Your task to perform on an android device: When is my next meeting? Image 0: 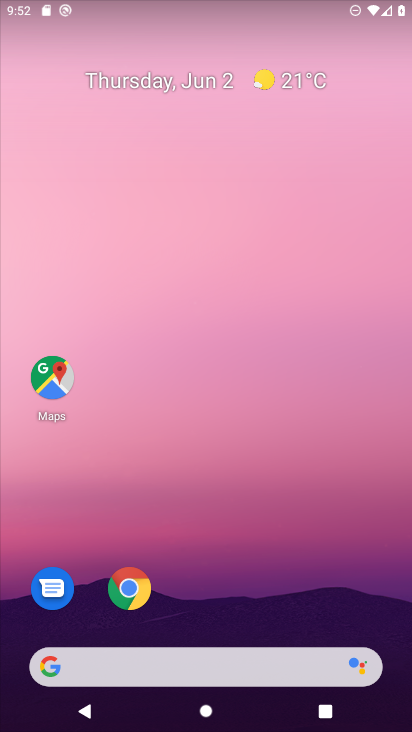
Step 0: drag from (160, 648) to (234, 81)
Your task to perform on an android device: When is my next meeting? Image 1: 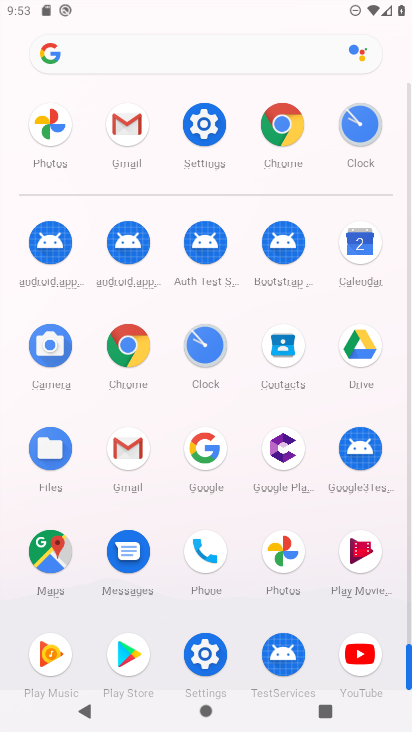
Step 1: click (358, 260)
Your task to perform on an android device: When is my next meeting? Image 2: 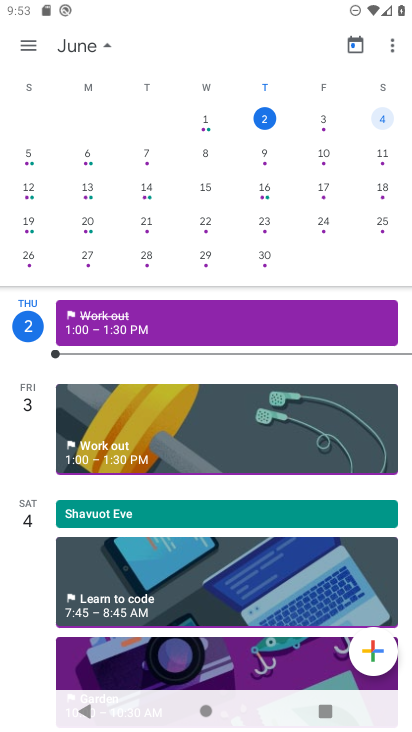
Step 2: click (33, 43)
Your task to perform on an android device: When is my next meeting? Image 3: 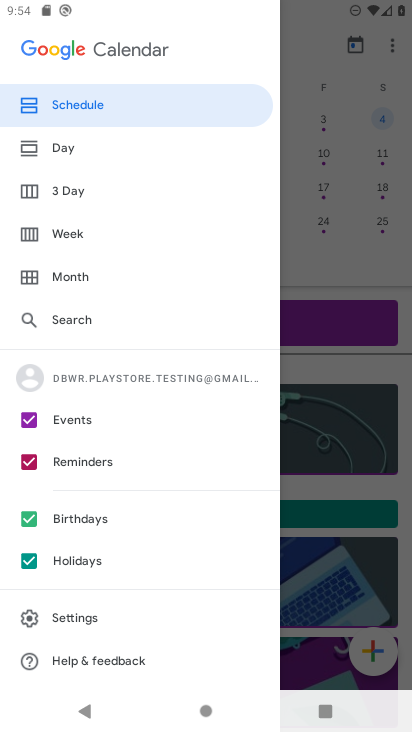
Step 3: click (66, 528)
Your task to perform on an android device: When is my next meeting? Image 4: 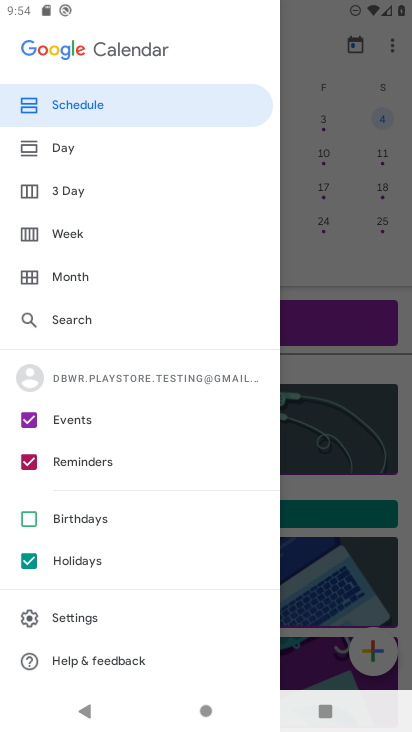
Step 4: click (36, 568)
Your task to perform on an android device: When is my next meeting? Image 5: 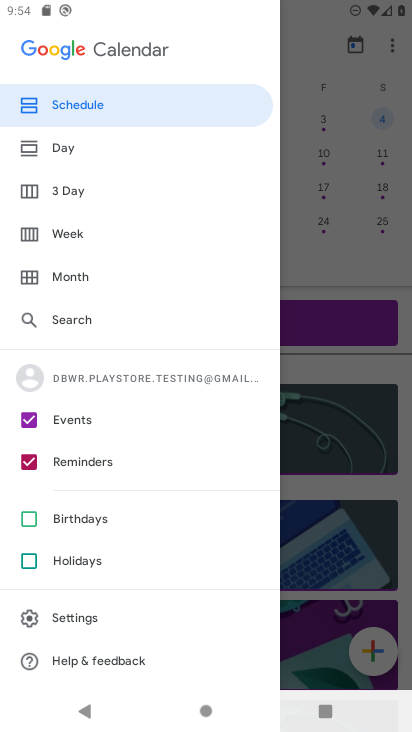
Step 5: click (359, 234)
Your task to perform on an android device: When is my next meeting? Image 6: 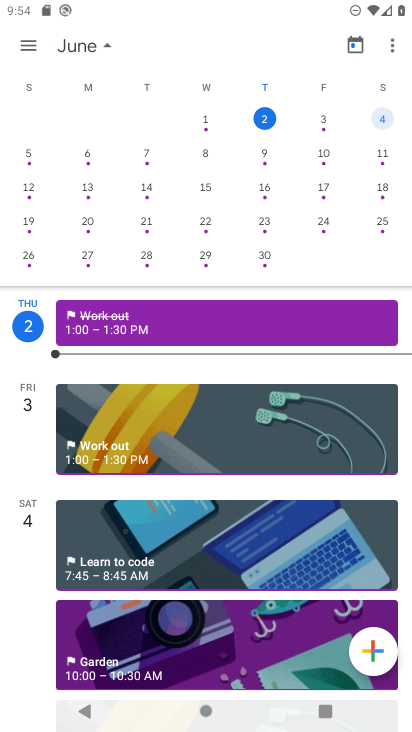
Step 6: task complete